Your task to perform on an android device: check data usage Image 0: 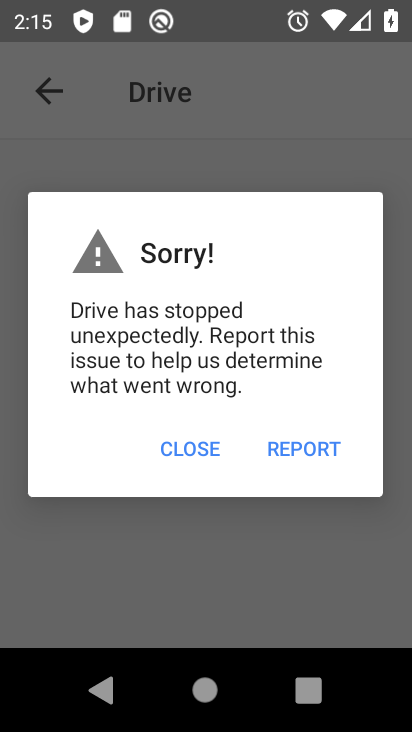
Step 0: press home button
Your task to perform on an android device: check data usage Image 1: 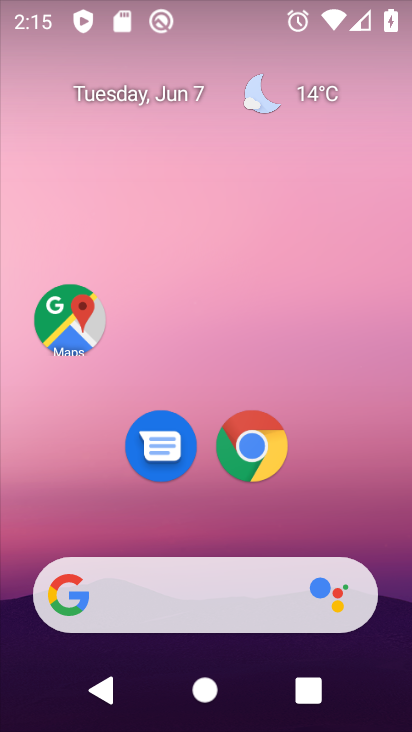
Step 1: drag from (400, 596) to (339, 44)
Your task to perform on an android device: check data usage Image 2: 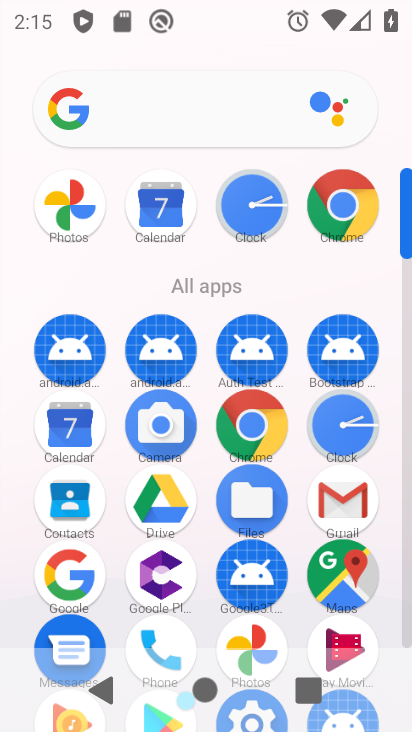
Step 2: click (406, 630)
Your task to perform on an android device: check data usage Image 3: 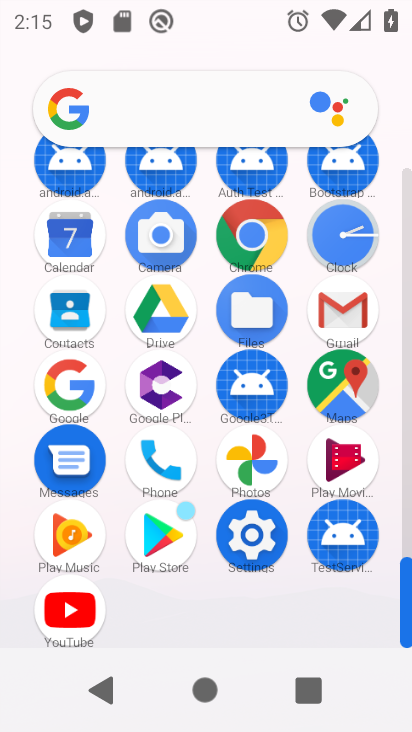
Step 3: click (249, 532)
Your task to perform on an android device: check data usage Image 4: 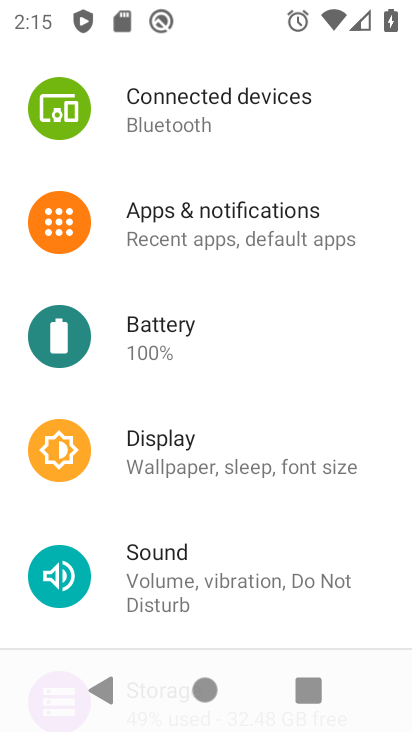
Step 4: drag from (355, 162) to (346, 419)
Your task to perform on an android device: check data usage Image 5: 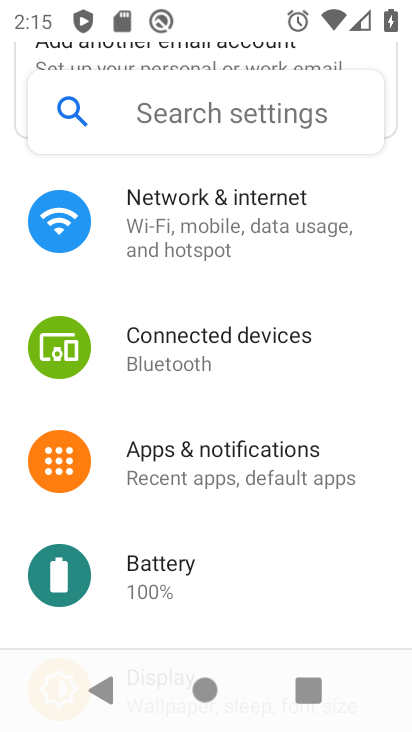
Step 5: click (166, 222)
Your task to perform on an android device: check data usage Image 6: 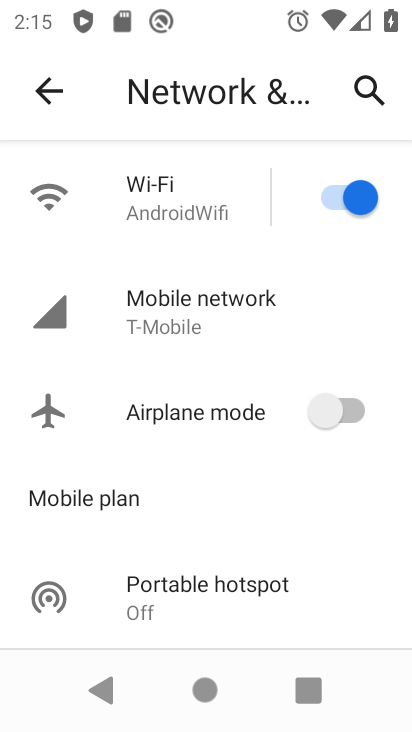
Step 6: click (172, 315)
Your task to perform on an android device: check data usage Image 7: 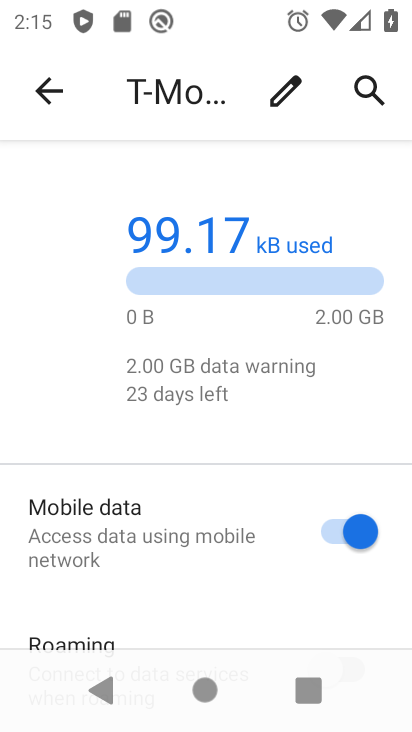
Step 7: task complete